Your task to perform on an android device: Open calendar and show me the first week of next month Image 0: 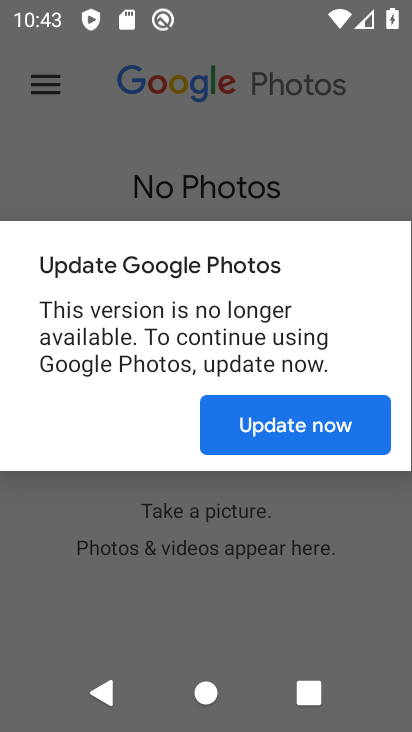
Step 0: press home button
Your task to perform on an android device: Open calendar and show me the first week of next month Image 1: 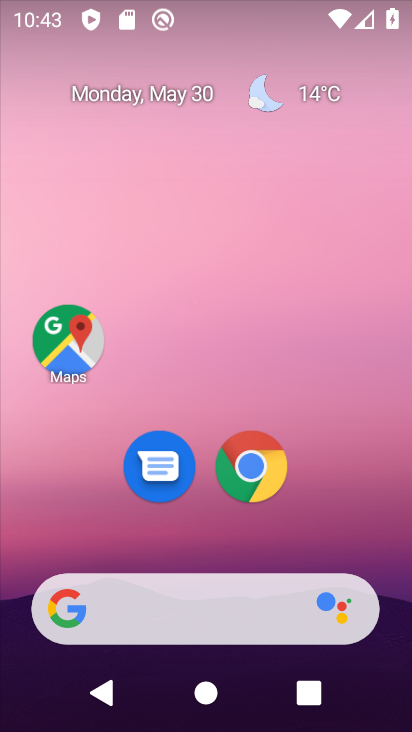
Step 1: drag from (307, 488) to (393, 6)
Your task to perform on an android device: Open calendar and show me the first week of next month Image 2: 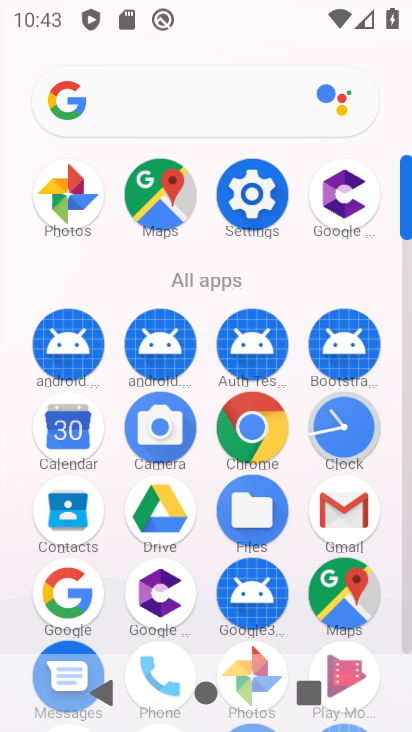
Step 2: click (52, 423)
Your task to perform on an android device: Open calendar and show me the first week of next month Image 3: 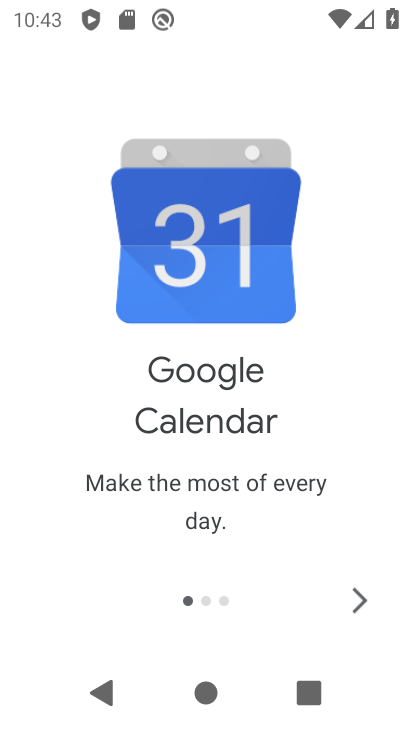
Step 3: click (358, 594)
Your task to perform on an android device: Open calendar and show me the first week of next month Image 4: 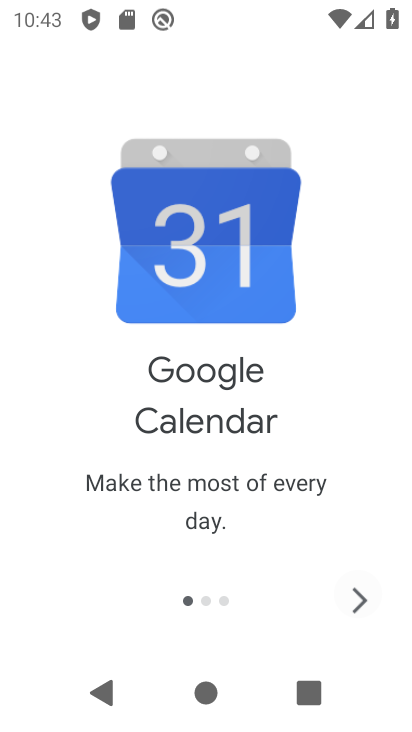
Step 4: click (358, 594)
Your task to perform on an android device: Open calendar and show me the first week of next month Image 5: 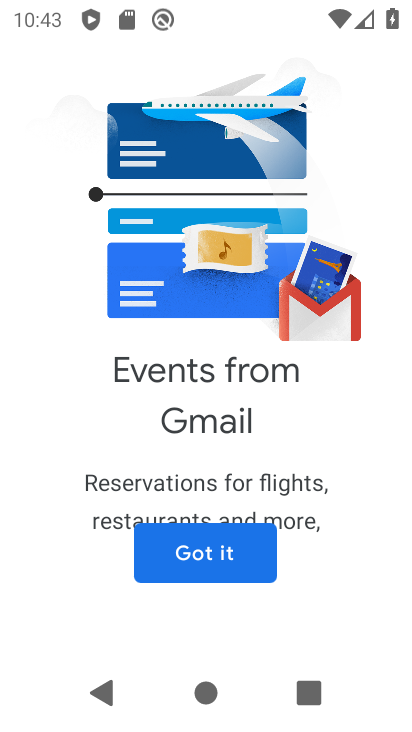
Step 5: click (358, 594)
Your task to perform on an android device: Open calendar and show me the first week of next month Image 6: 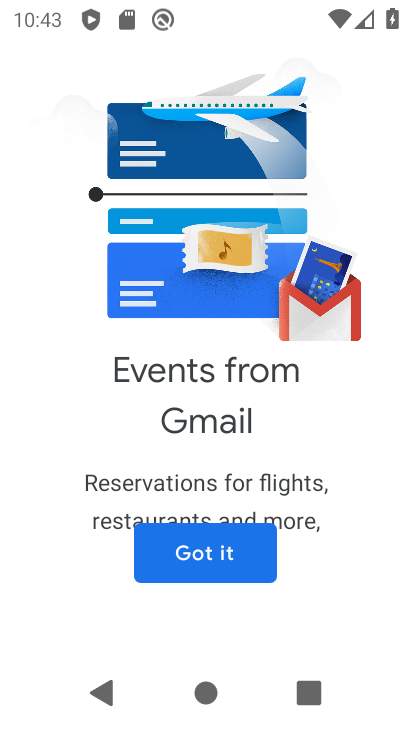
Step 6: click (273, 548)
Your task to perform on an android device: Open calendar and show me the first week of next month Image 7: 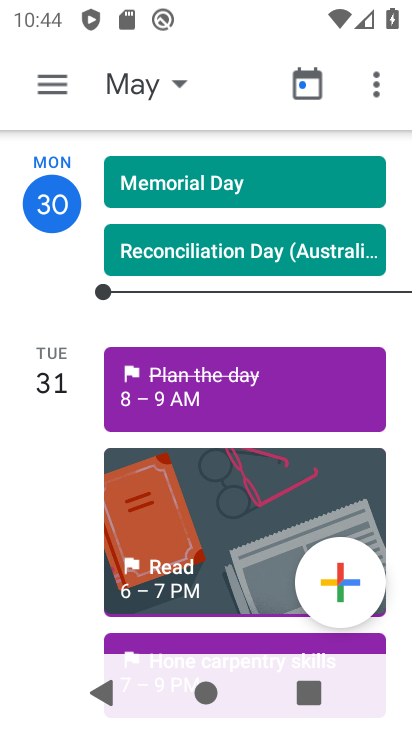
Step 7: click (52, 79)
Your task to perform on an android device: Open calendar and show me the first week of next month Image 8: 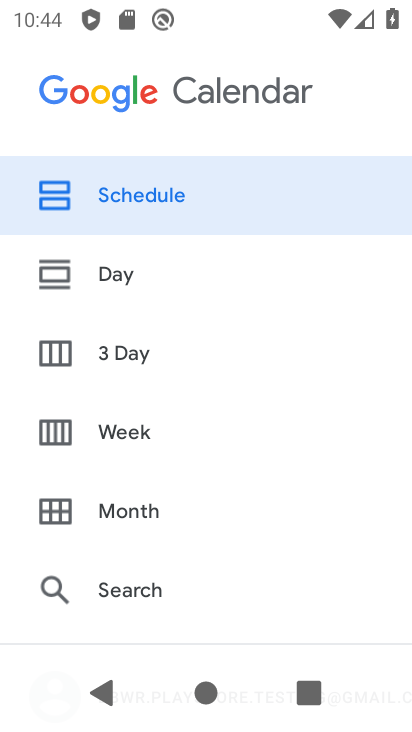
Step 8: click (140, 424)
Your task to perform on an android device: Open calendar and show me the first week of next month Image 9: 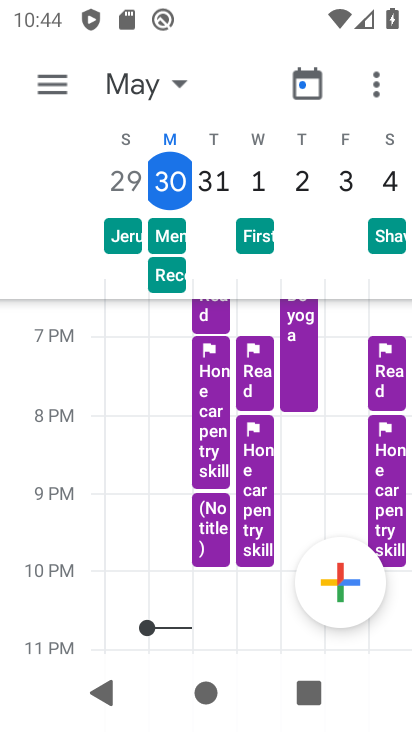
Step 9: click (168, 85)
Your task to perform on an android device: Open calendar and show me the first week of next month Image 10: 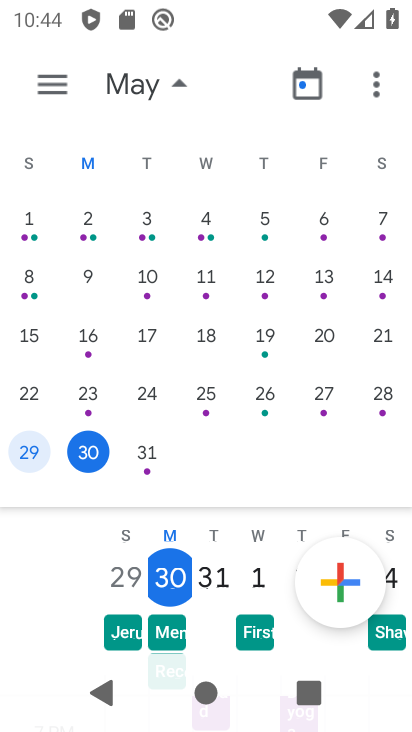
Step 10: task complete